Your task to perform on an android device: Search for pizza restaurants on Maps Image 0: 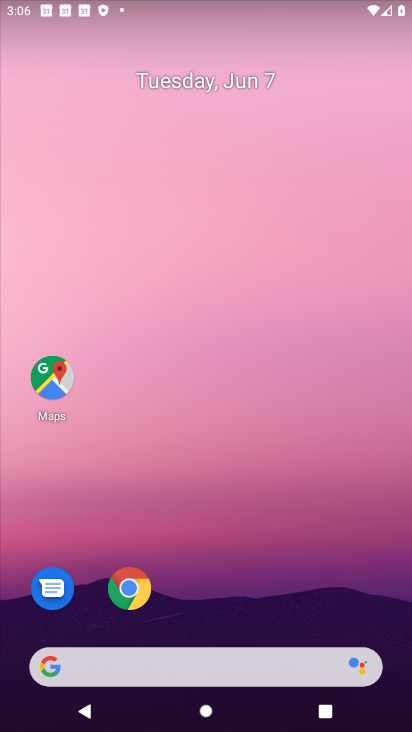
Step 0: click (64, 367)
Your task to perform on an android device: Search for pizza restaurants on Maps Image 1: 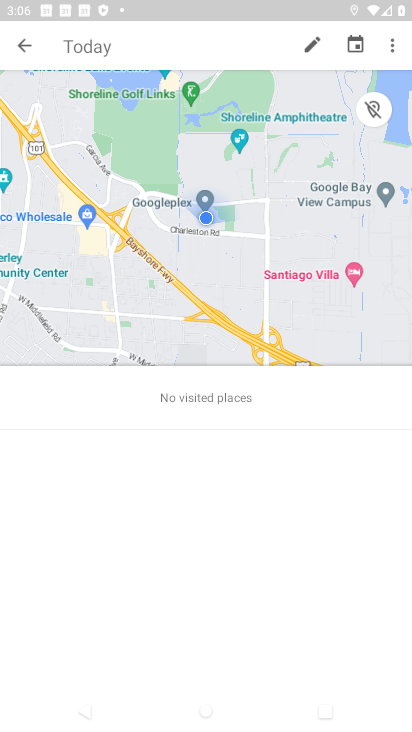
Step 1: task complete